Your task to perform on an android device: clear history in the chrome app Image 0: 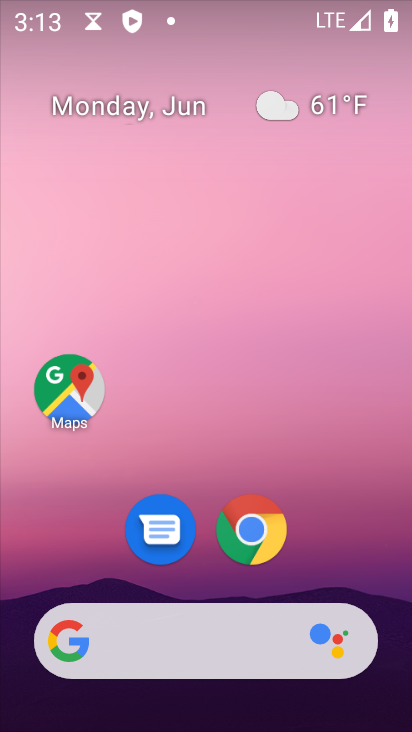
Step 0: drag from (250, 653) to (167, 59)
Your task to perform on an android device: clear history in the chrome app Image 1: 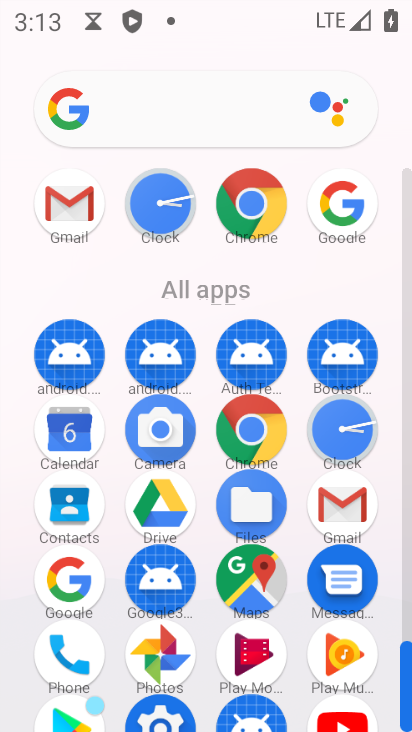
Step 1: click (249, 206)
Your task to perform on an android device: clear history in the chrome app Image 2: 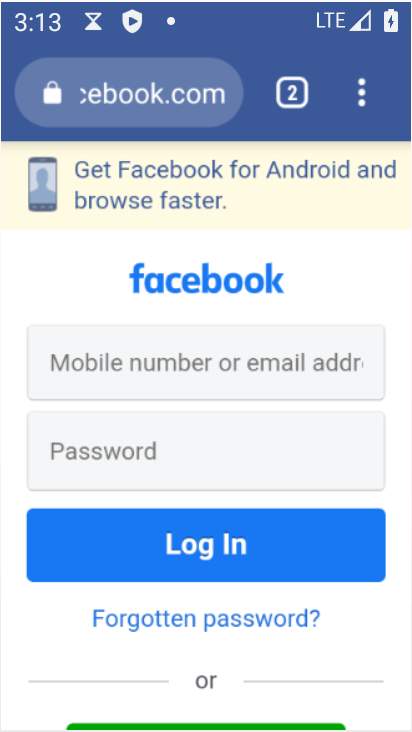
Step 2: click (252, 213)
Your task to perform on an android device: clear history in the chrome app Image 3: 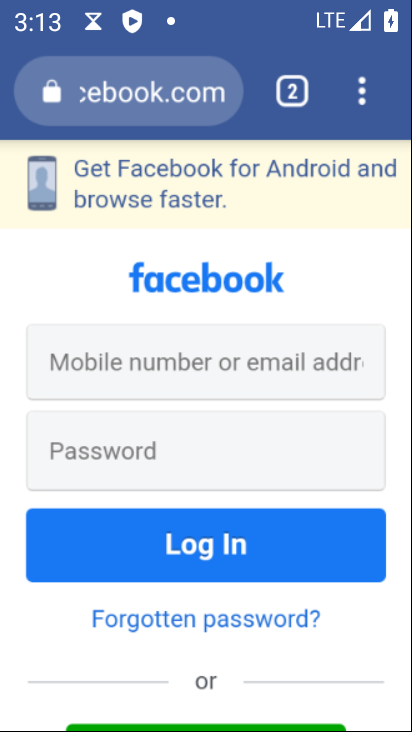
Step 3: click (252, 213)
Your task to perform on an android device: clear history in the chrome app Image 4: 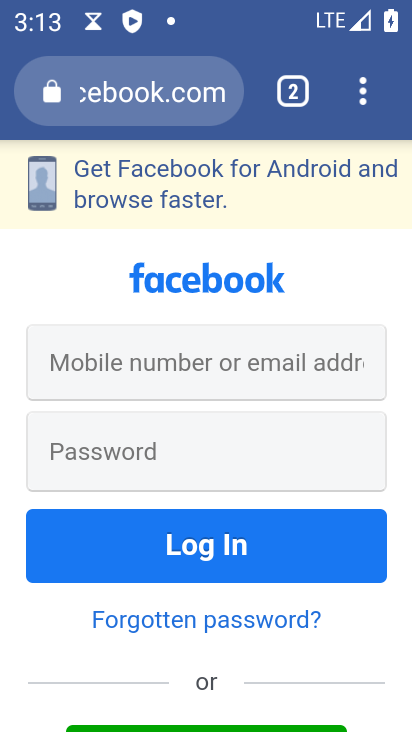
Step 4: press back button
Your task to perform on an android device: clear history in the chrome app Image 5: 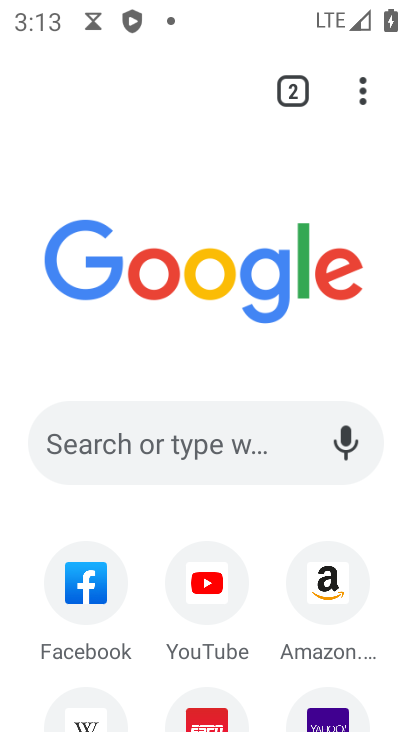
Step 5: drag from (351, 100) to (79, 536)
Your task to perform on an android device: clear history in the chrome app Image 6: 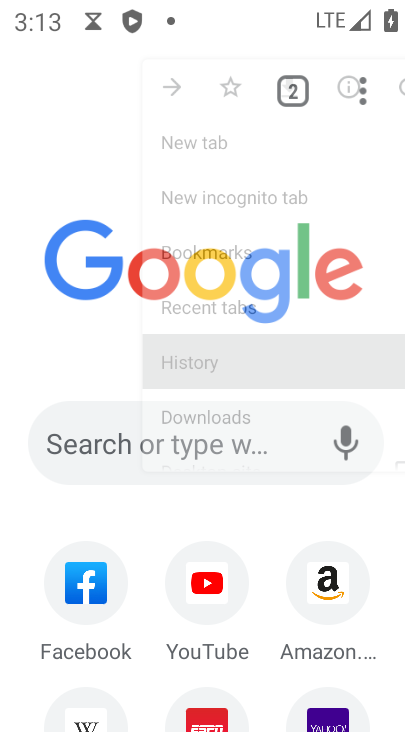
Step 6: click (78, 537)
Your task to perform on an android device: clear history in the chrome app Image 7: 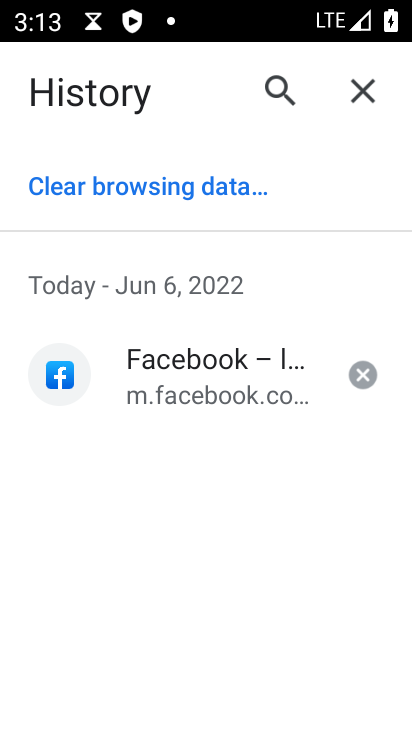
Step 7: click (144, 179)
Your task to perform on an android device: clear history in the chrome app Image 8: 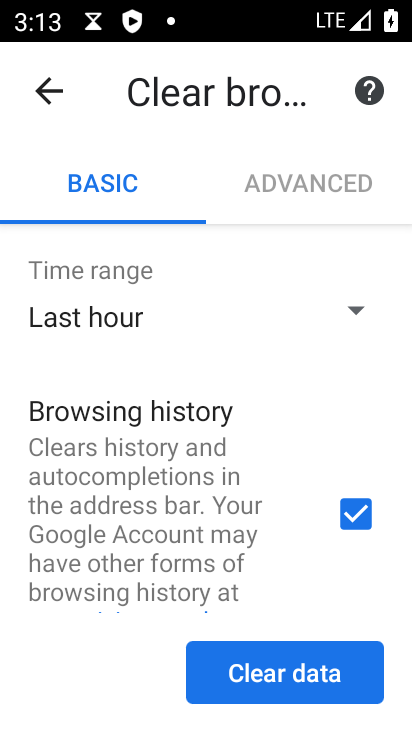
Step 8: click (257, 668)
Your task to perform on an android device: clear history in the chrome app Image 9: 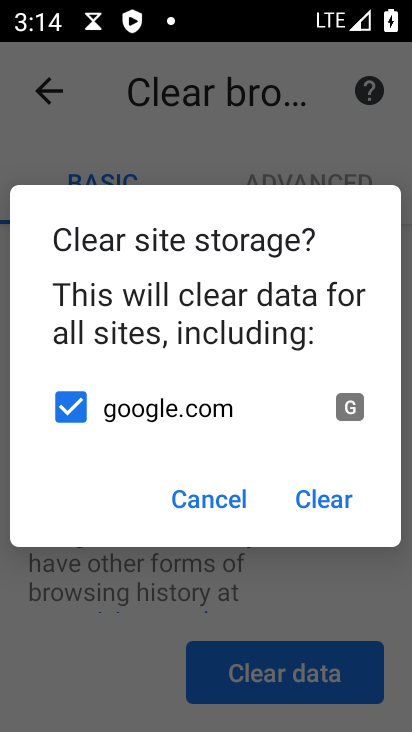
Step 9: click (346, 493)
Your task to perform on an android device: clear history in the chrome app Image 10: 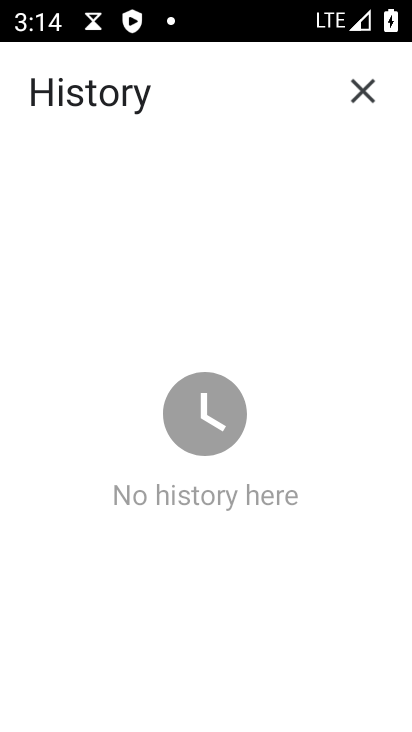
Step 10: task complete